Your task to perform on an android device: Open Youtube and go to "Your channel" Image 0: 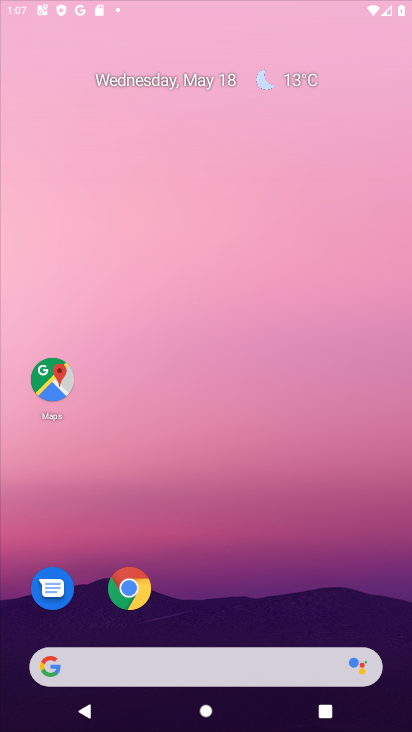
Step 0: click (321, 103)
Your task to perform on an android device: Open Youtube and go to "Your channel" Image 1: 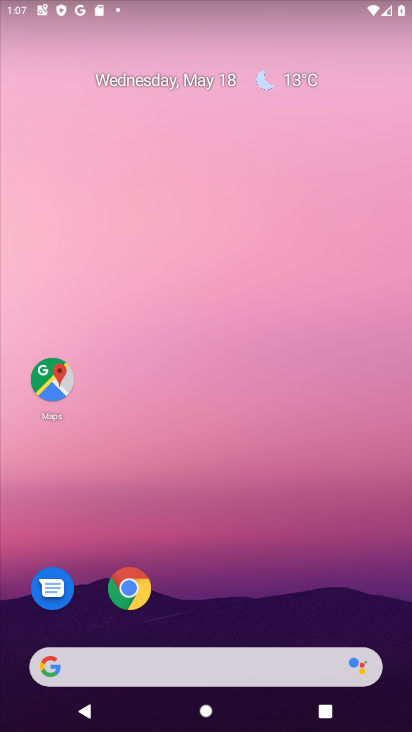
Step 1: drag from (192, 631) to (257, 28)
Your task to perform on an android device: Open Youtube and go to "Your channel" Image 2: 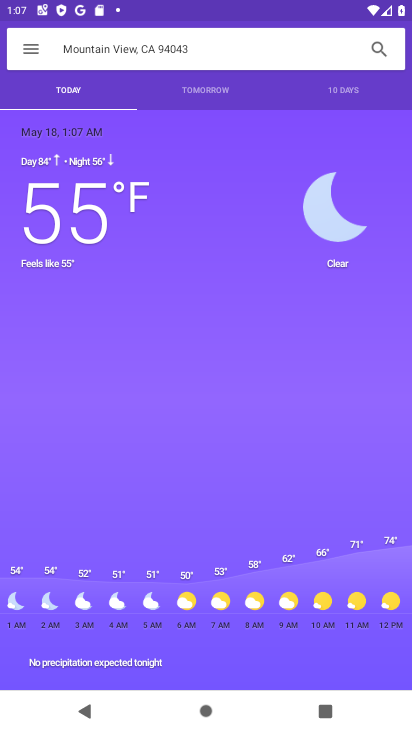
Step 2: press home button
Your task to perform on an android device: Open Youtube and go to "Your channel" Image 3: 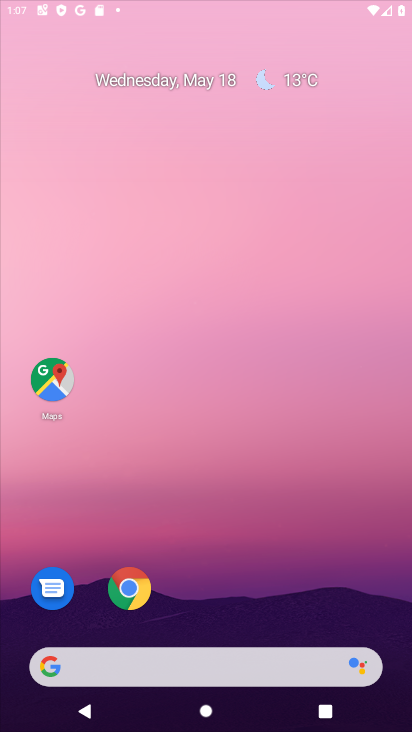
Step 3: drag from (183, 613) to (274, 46)
Your task to perform on an android device: Open Youtube and go to "Your channel" Image 4: 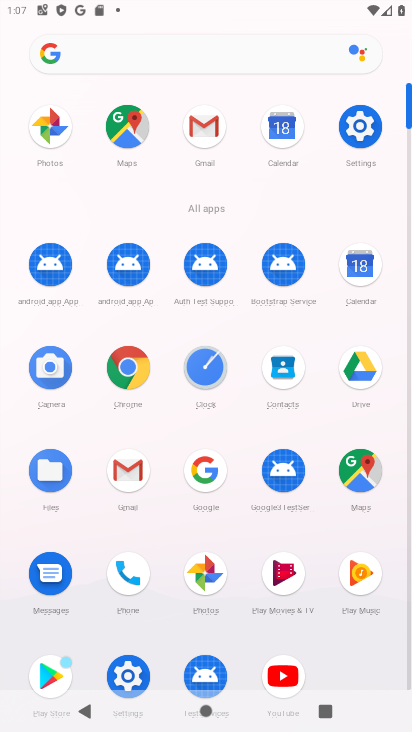
Step 4: click (282, 670)
Your task to perform on an android device: Open Youtube and go to "Your channel" Image 5: 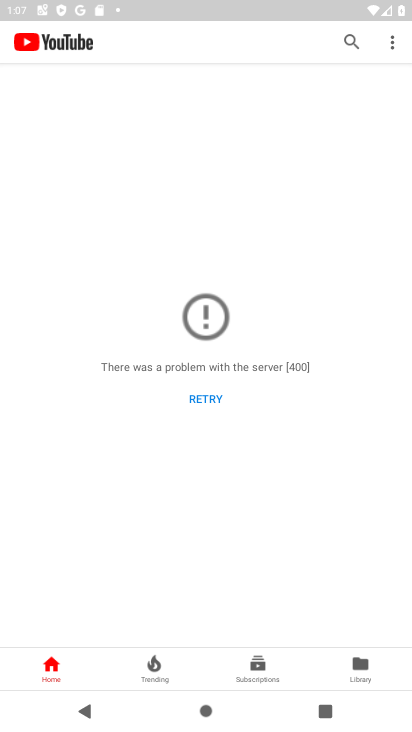
Step 5: click (359, 675)
Your task to perform on an android device: Open Youtube and go to "Your channel" Image 6: 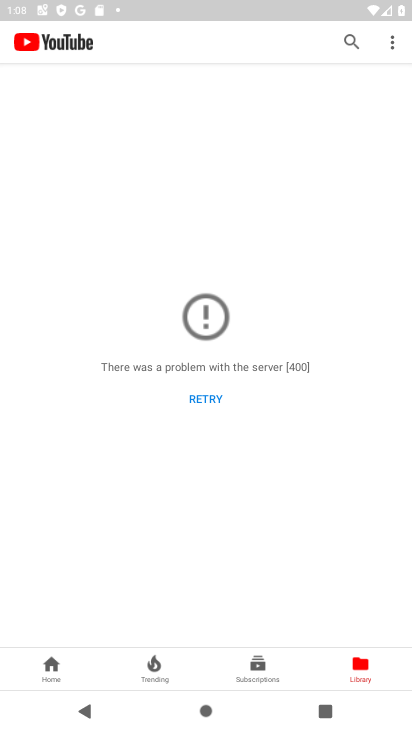
Step 6: click (384, 39)
Your task to perform on an android device: Open Youtube and go to "Your channel" Image 7: 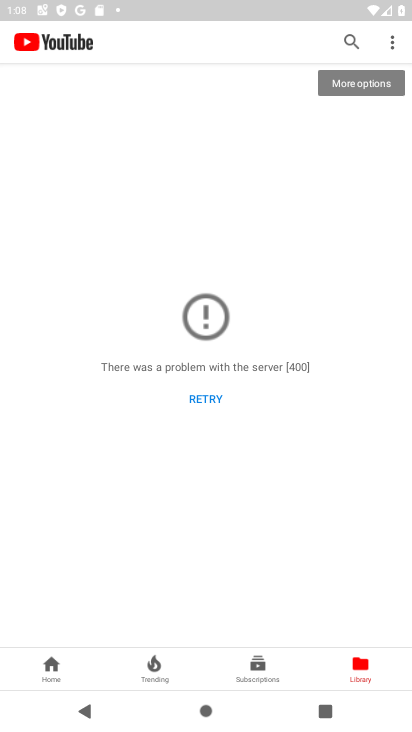
Step 7: click (334, 84)
Your task to perform on an android device: Open Youtube and go to "Your channel" Image 8: 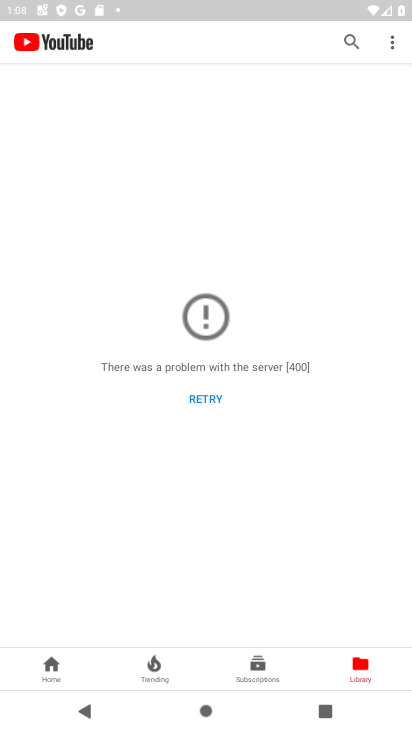
Step 8: click (389, 44)
Your task to perform on an android device: Open Youtube and go to "Your channel" Image 9: 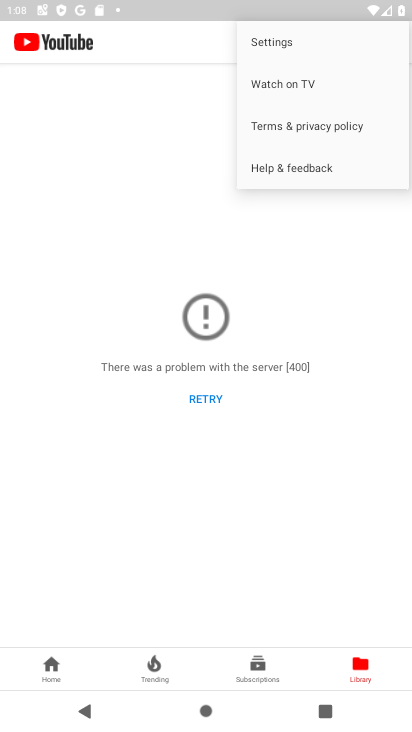
Step 9: click (293, 41)
Your task to perform on an android device: Open Youtube and go to "Your channel" Image 10: 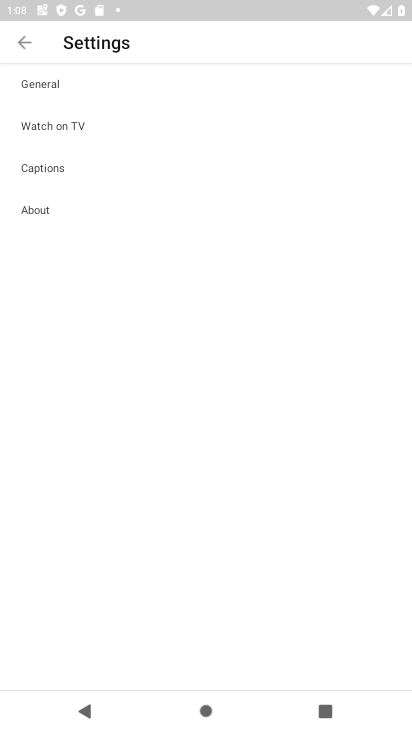
Step 10: click (30, 54)
Your task to perform on an android device: Open Youtube and go to "Your channel" Image 11: 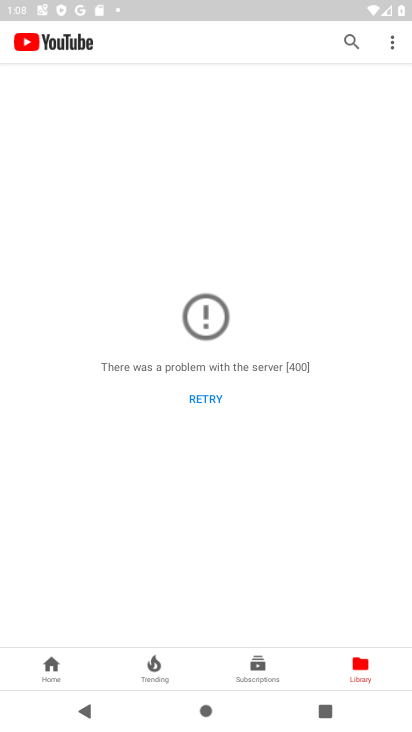
Step 11: task complete